Your task to perform on an android device: What is the recent news? Image 0: 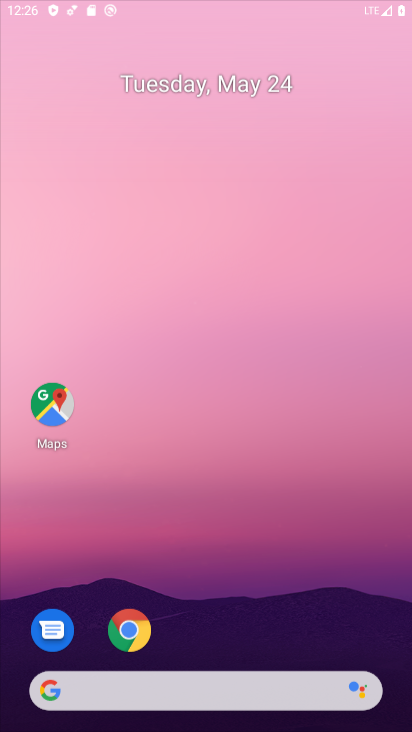
Step 0: click (186, 74)
Your task to perform on an android device: What is the recent news? Image 1: 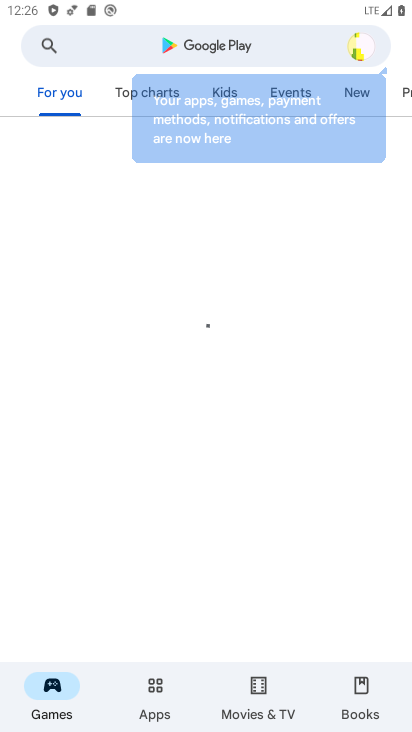
Step 1: task complete